Your task to perform on an android device: Open Google Chrome and open the bookmarks view Image 0: 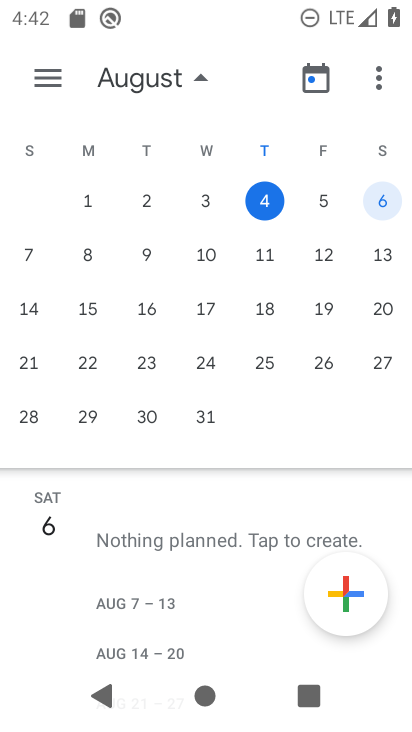
Step 0: press back button
Your task to perform on an android device: Open Google Chrome and open the bookmarks view Image 1: 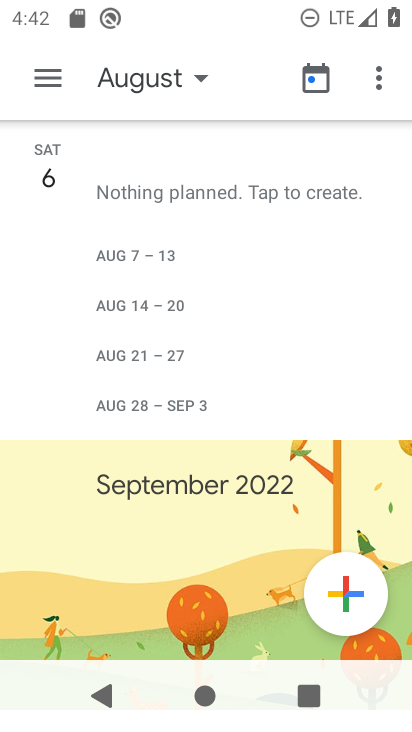
Step 1: press back button
Your task to perform on an android device: Open Google Chrome and open the bookmarks view Image 2: 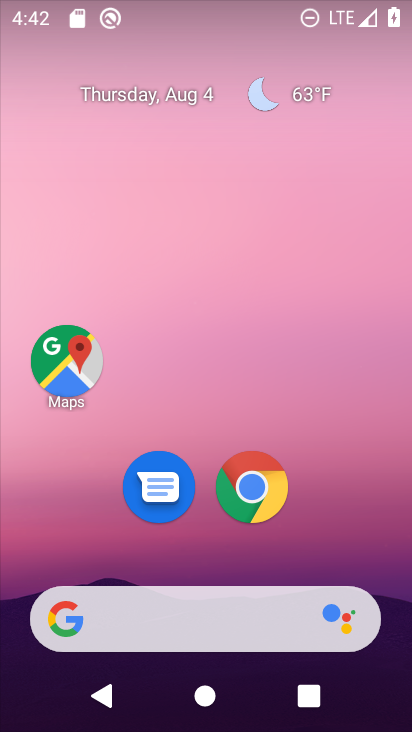
Step 2: click (264, 490)
Your task to perform on an android device: Open Google Chrome and open the bookmarks view Image 3: 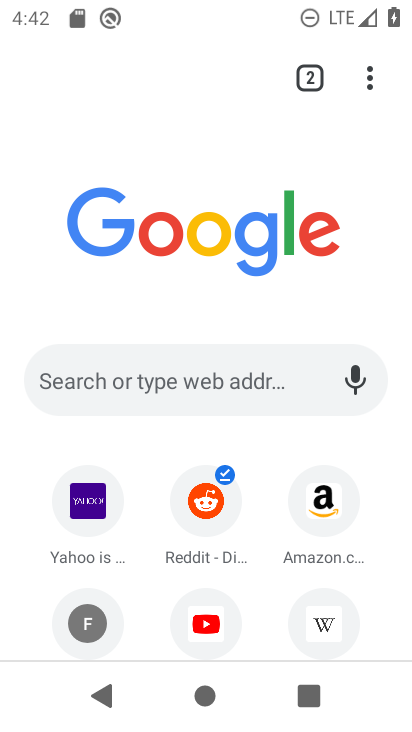
Step 3: drag from (370, 71) to (150, 292)
Your task to perform on an android device: Open Google Chrome and open the bookmarks view Image 4: 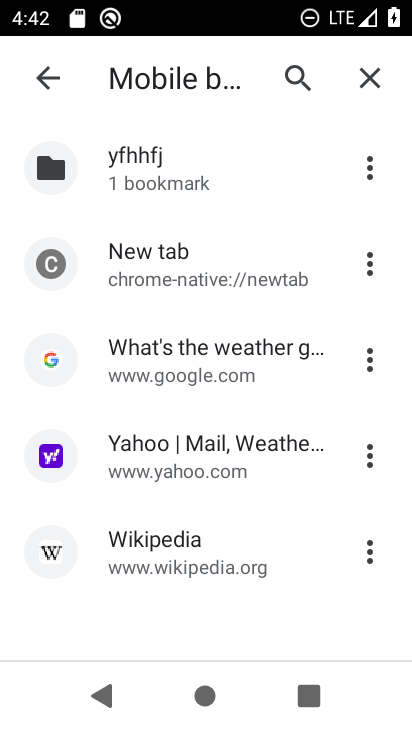
Step 4: click (144, 466)
Your task to perform on an android device: Open Google Chrome and open the bookmarks view Image 5: 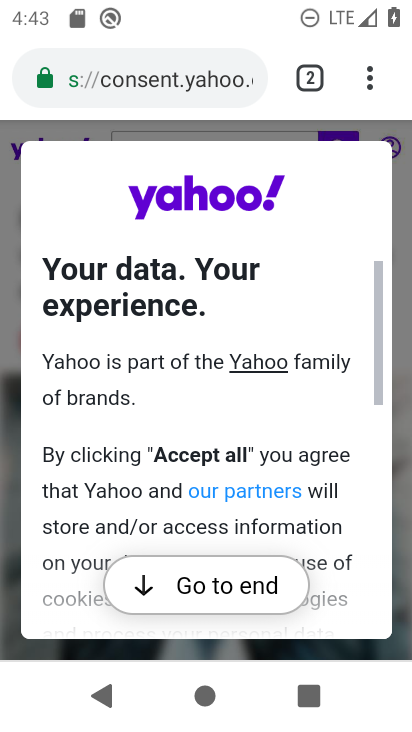
Step 5: task complete